Your task to perform on an android device: Open calendar and show me the third week of next month Image 0: 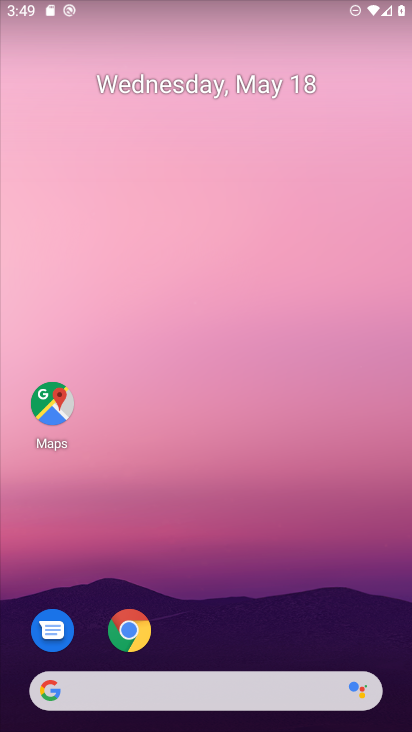
Step 0: drag from (212, 645) to (258, 11)
Your task to perform on an android device: Open calendar and show me the third week of next month Image 1: 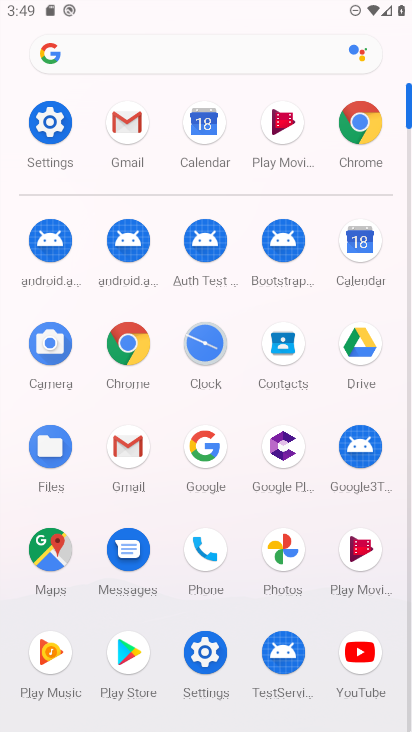
Step 1: click (361, 240)
Your task to perform on an android device: Open calendar and show me the third week of next month Image 2: 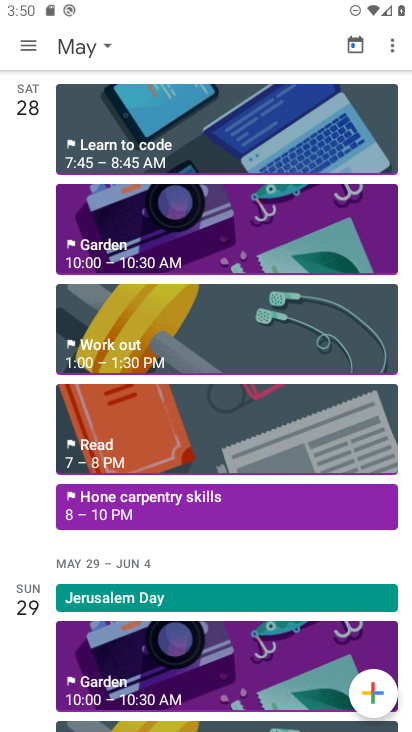
Step 2: click (21, 24)
Your task to perform on an android device: Open calendar and show me the third week of next month Image 3: 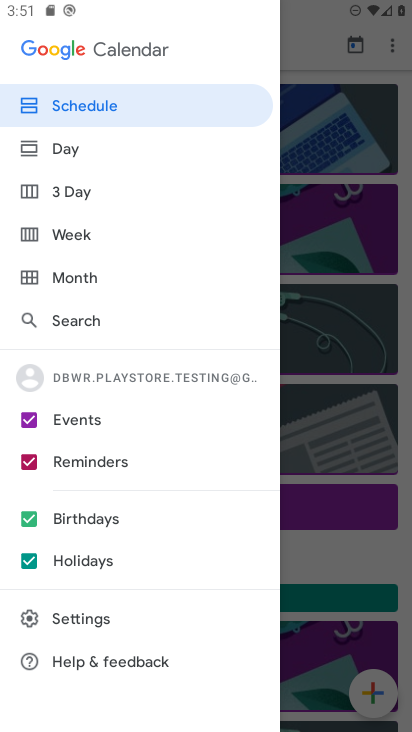
Step 3: click (70, 233)
Your task to perform on an android device: Open calendar and show me the third week of next month Image 4: 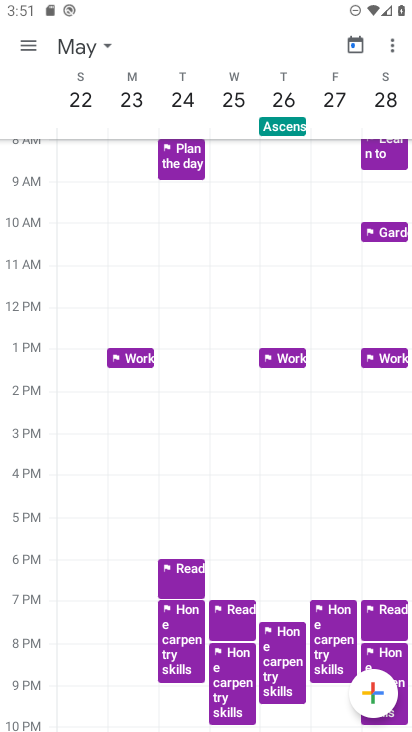
Step 4: drag from (375, 87) to (15, 107)
Your task to perform on an android device: Open calendar and show me the third week of next month Image 5: 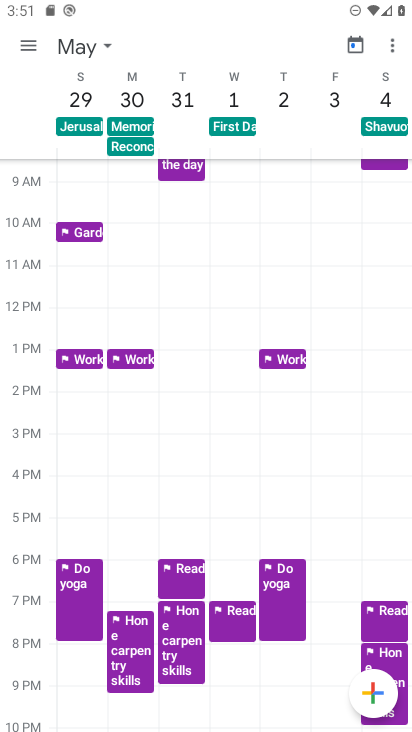
Step 5: drag from (372, 90) to (129, 112)
Your task to perform on an android device: Open calendar and show me the third week of next month Image 6: 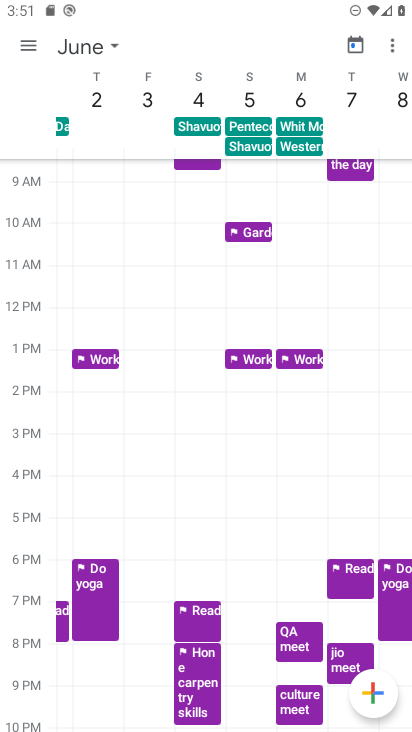
Step 6: click (69, 103)
Your task to perform on an android device: Open calendar and show me the third week of next month Image 7: 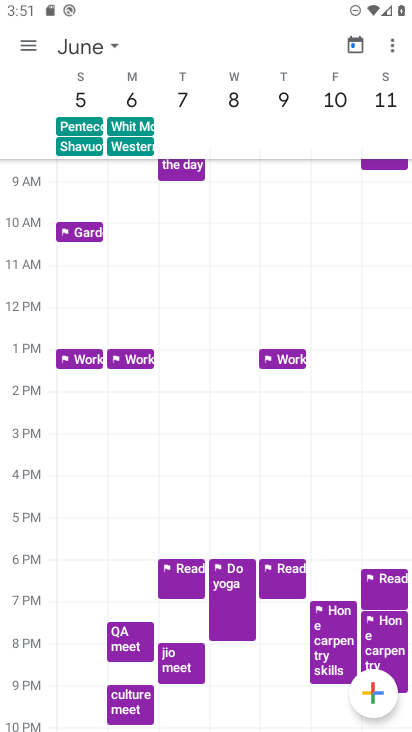
Step 7: drag from (380, 95) to (3, 87)
Your task to perform on an android device: Open calendar and show me the third week of next month Image 8: 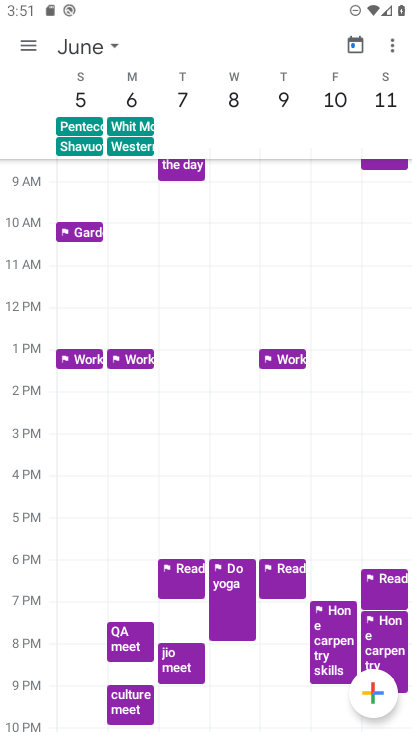
Step 8: drag from (385, 98) to (17, 95)
Your task to perform on an android device: Open calendar and show me the third week of next month Image 9: 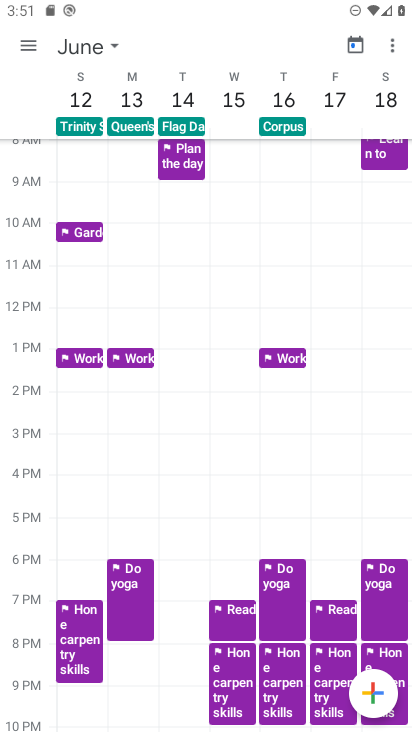
Step 9: click (75, 92)
Your task to perform on an android device: Open calendar and show me the third week of next month Image 10: 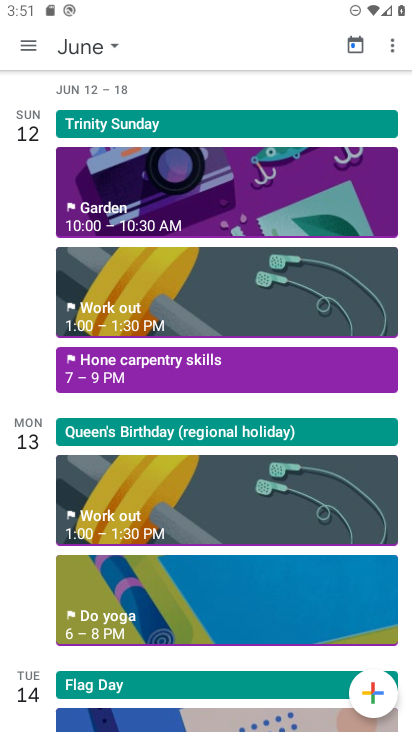
Step 10: task complete